Your task to perform on an android device: Do I have any events today? Image 0: 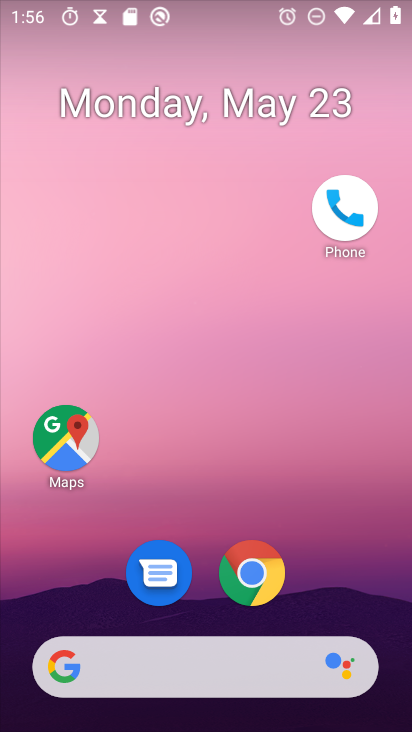
Step 0: press home button
Your task to perform on an android device: Do I have any events today? Image 1: 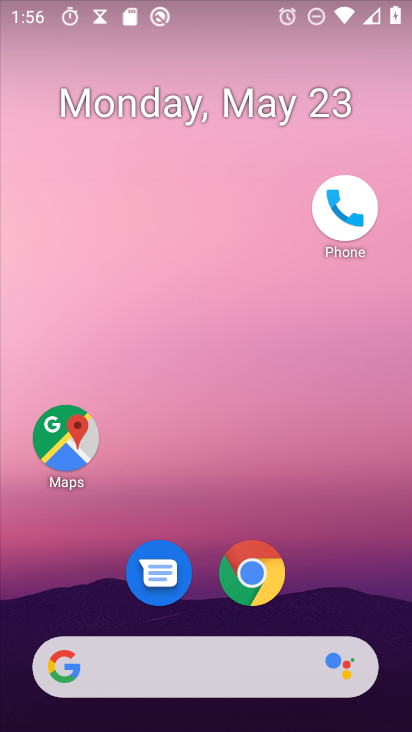
Step 1: drag from (182, 678) to (346, 14)
Your task to perform on an android device: Do I have any events today? Image 2: 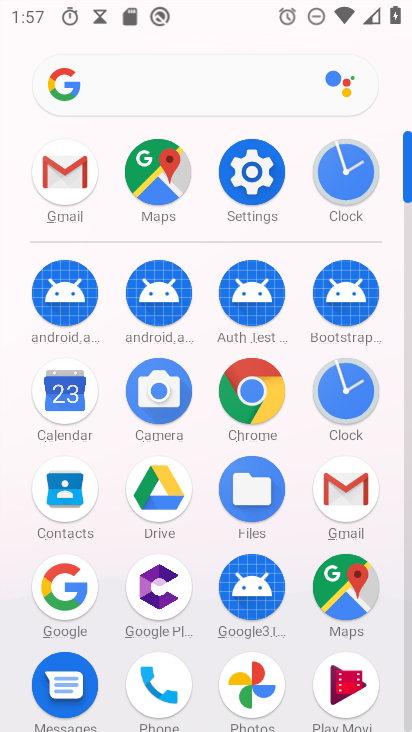
Step 2: click (61, 409)
Your task to perform on an android device: Do I have any events today? Image 3: 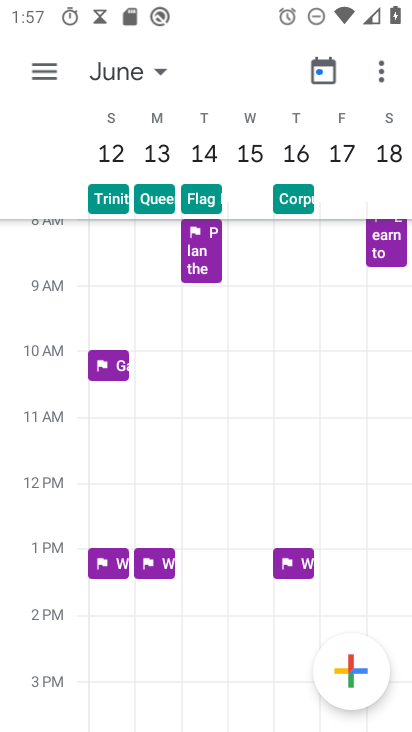
Step 3: click (129, 70)
Your task to perform on an android device: Do I have any events today? Image 4: 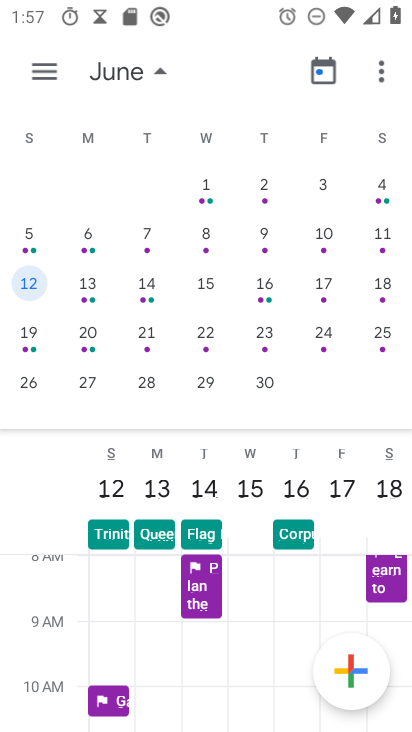
Step 4: drag from (78, 262) to (411, 236)
Your task to perform on an android device: Do I have any events today? Image 5: 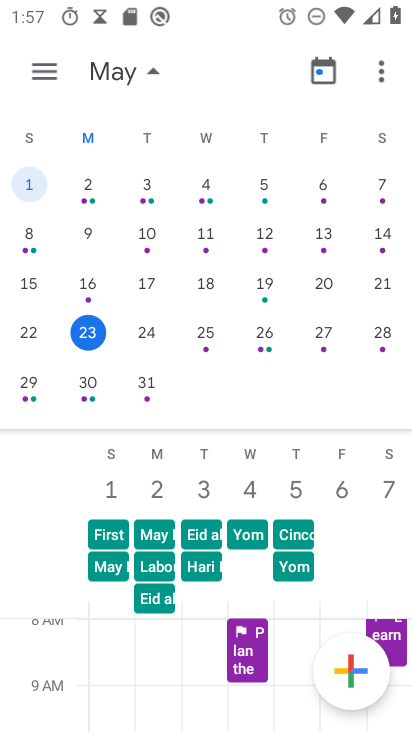
Step 5: click (97, 332)
Your task to perform on an android device: Do I have any events today? Image 6: 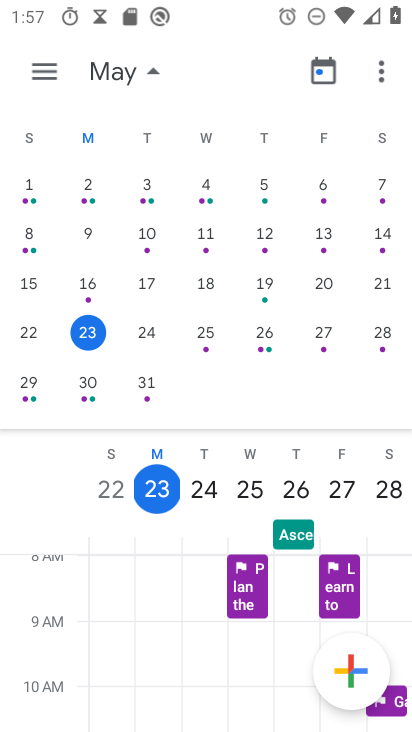
Step 6: click (47, 76)
Your task to perform on an android device: Do I have any events today? Image 7: 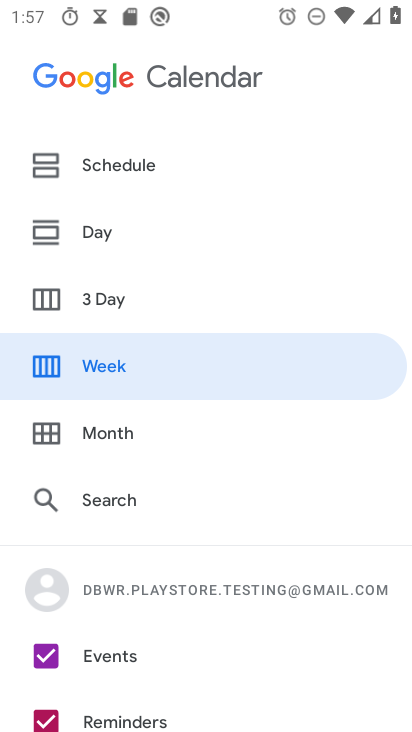
Step 7: click (105, 164)
Your task to perform on an android device: Do I have any events today? Image 8: 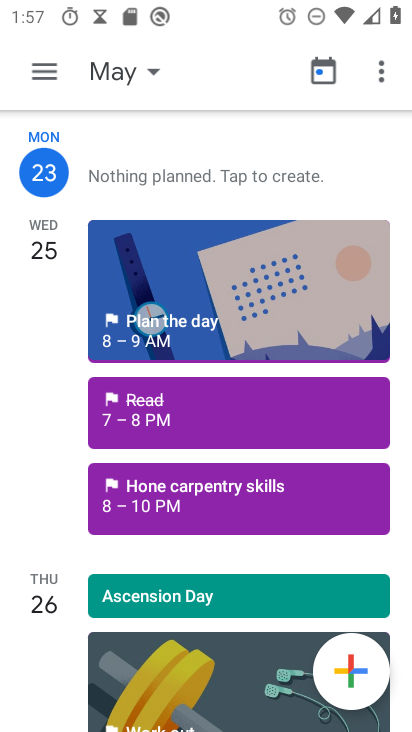
Step 8: task complete